Your task to perform on an android device: turn off data saver in the chrome app Image 0: 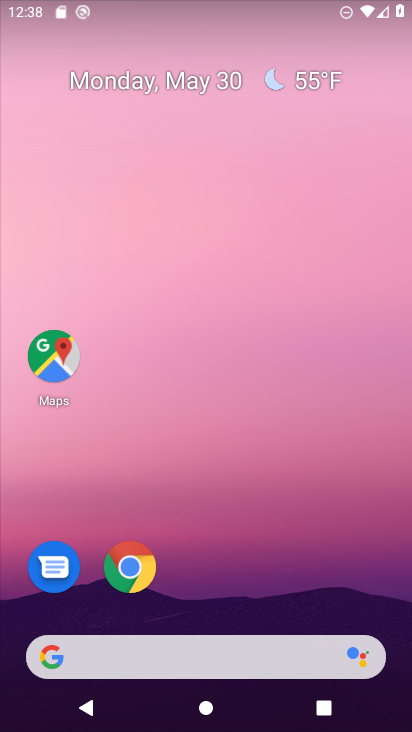
Step 0: click (130, 567)
Your task to perform on an android device: turn off data saver in the chrome app Image 1: 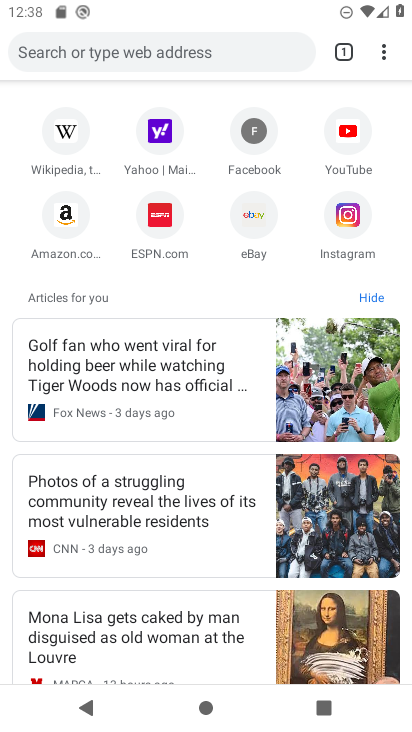
Step 1: click (380, 47)
Your task to perform on an android device: turn off data saver in the chrome app Image 2: 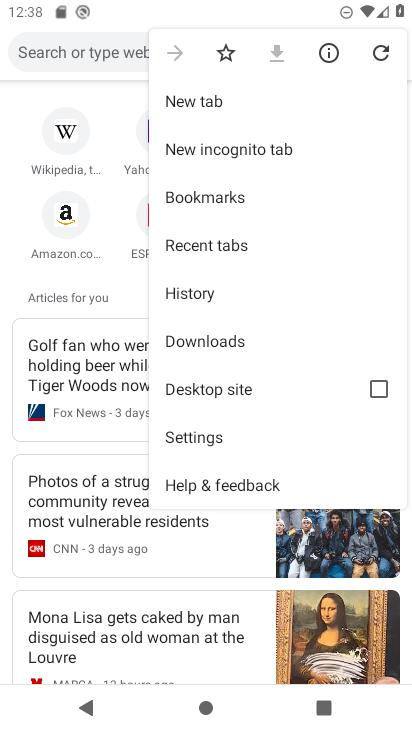
Step 2: click (232, 438)
Your task to perform on an android device: turn off data saver in the chrome app Image 3: 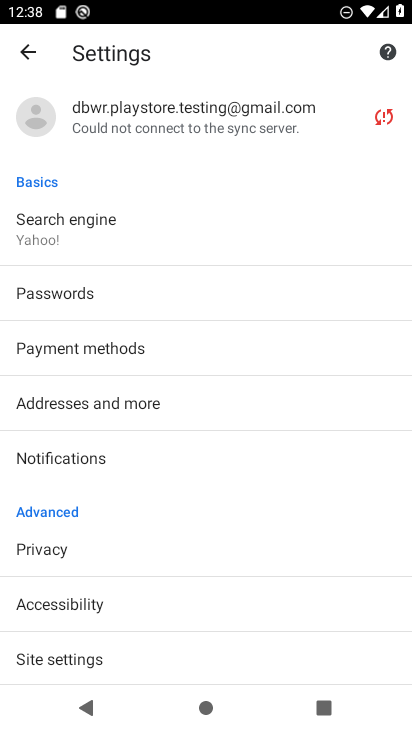
Step 3: drag from (94, 635) to (142, 31)
Your task to perform on an android device: turn off data saver in the chrome app Image 4: 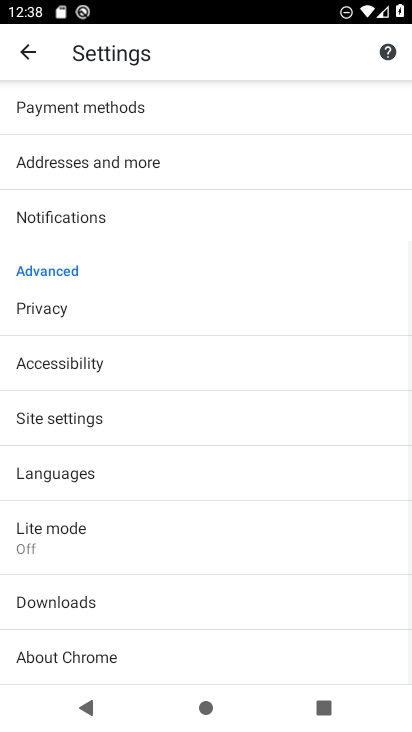
Step 4: click (82, 536)
Your task to perform on an android device: turn off data saver in the chrome app Image 5: 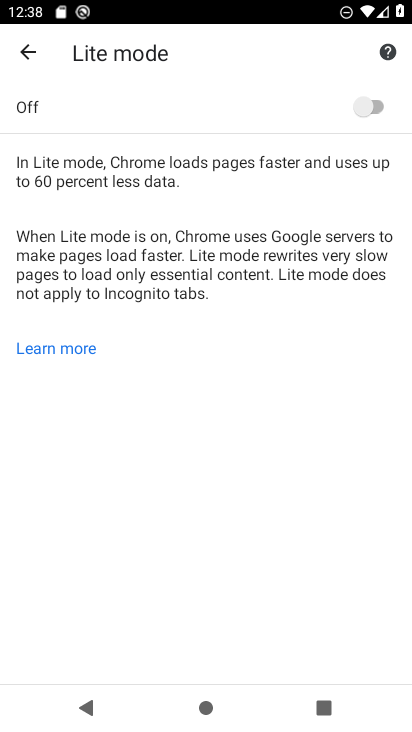
Step 5: task complete